Your task to perform on an android device: set an alarm Image 0: 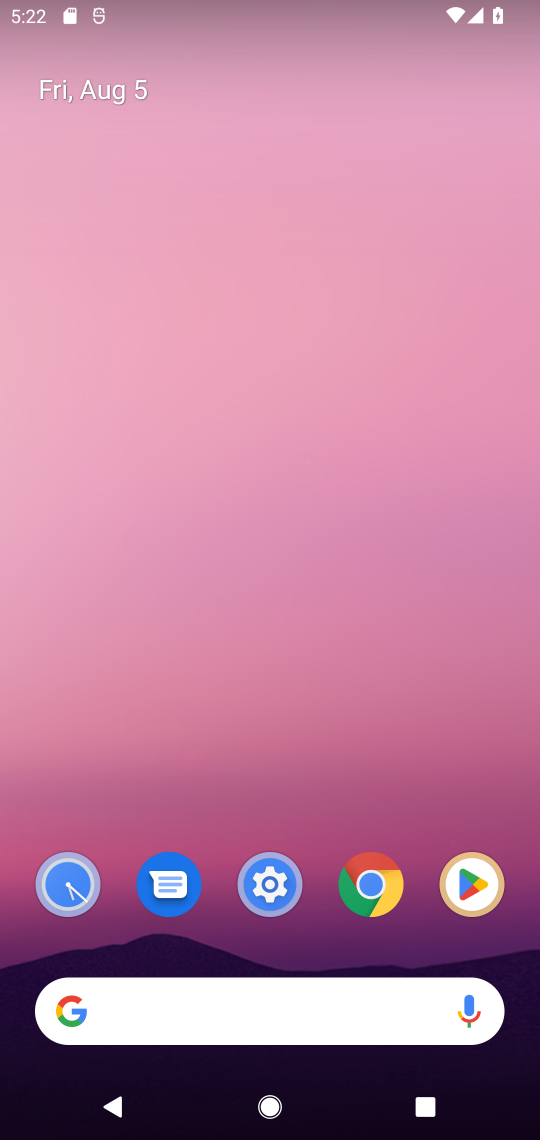
Step 0: drag from (177, 1017) to (125, 131)
Your task to perform on an android device: set an alarm Image 1: 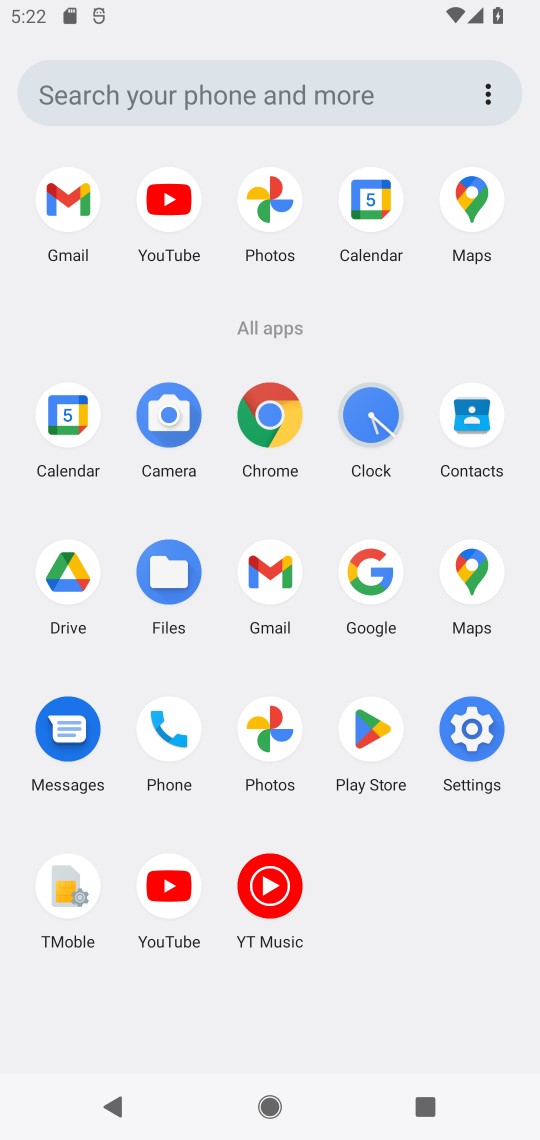
Step 1: click (342, 432)
Your task to perform on an android device: set an alarm Image 2: 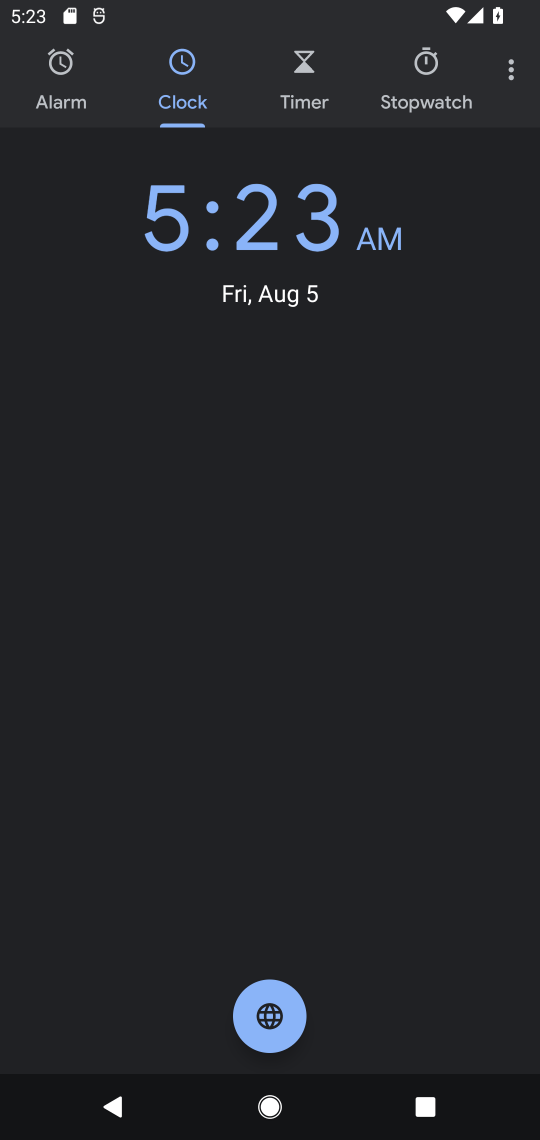
Step 2: click (71, 85)
Your task to perform on an android device: set an alarm Image 3: 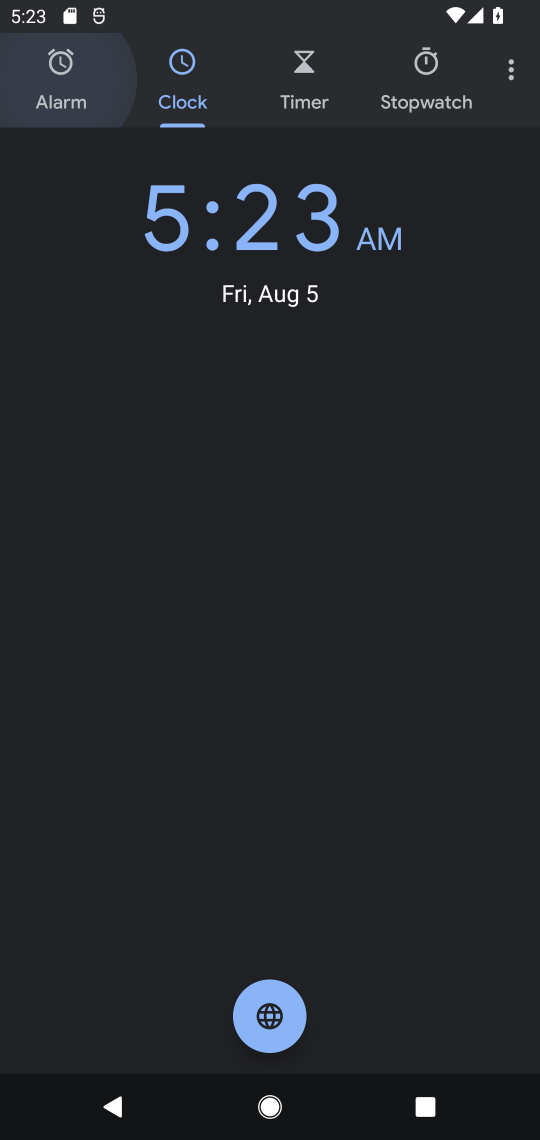
Step 3: click (79, 100)
Your task to perform on an android device: set an alarm Image 4: 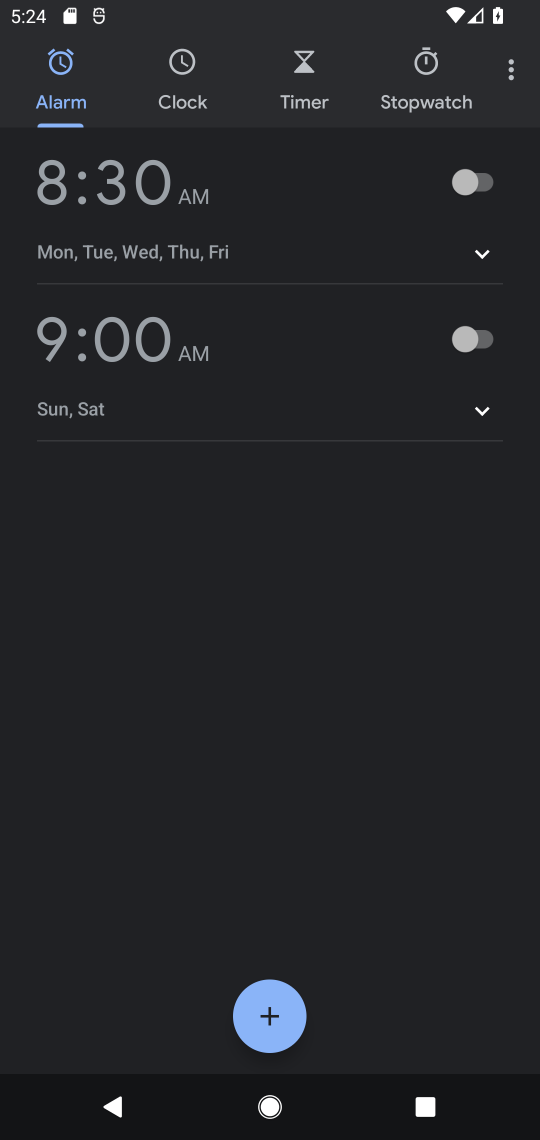
Step 4: click (255, 1019)
Your task to perform on an android device: set an alarm Image 5: 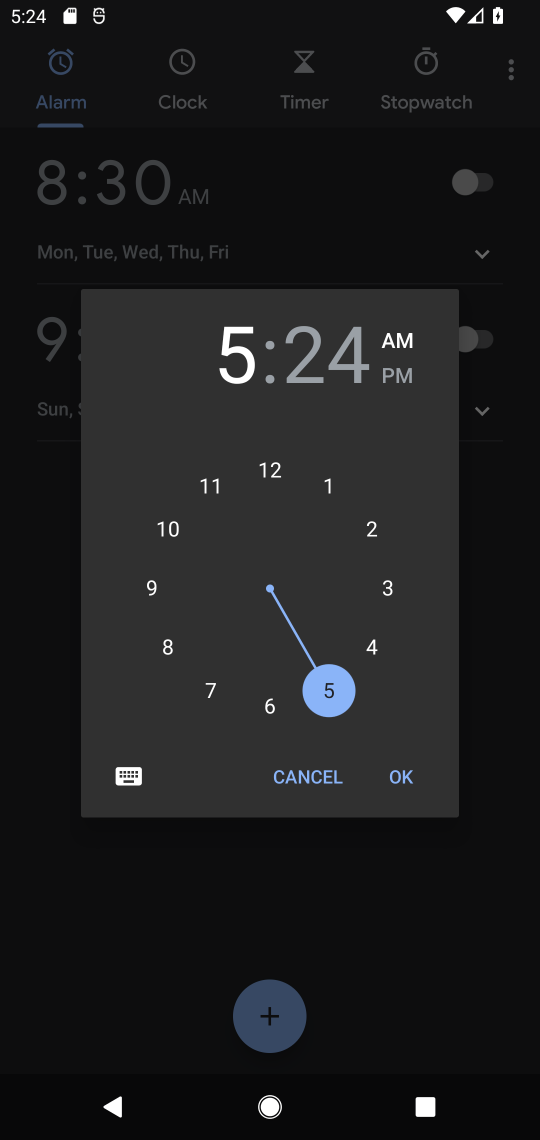
Step 5: click (211, 713)
Your task to perform on an android device: set an alarm Image 6: 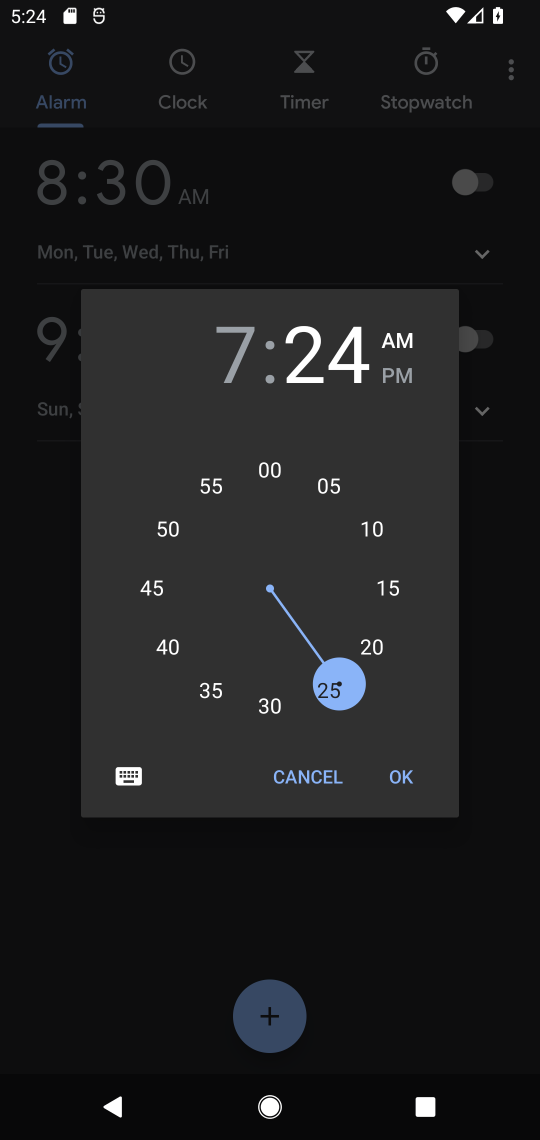
Step 6: click (385, 774)
Your task to perform on an android device: set an alarm Image 7: 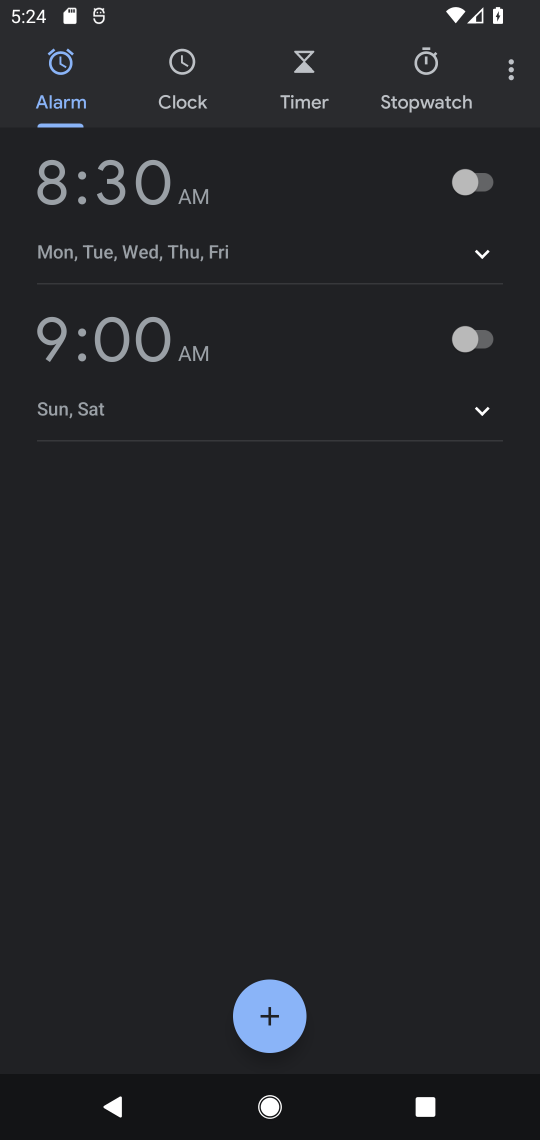
Step 7: task complete